Your task to perform on an android device: turn off airplane mode Image 0: 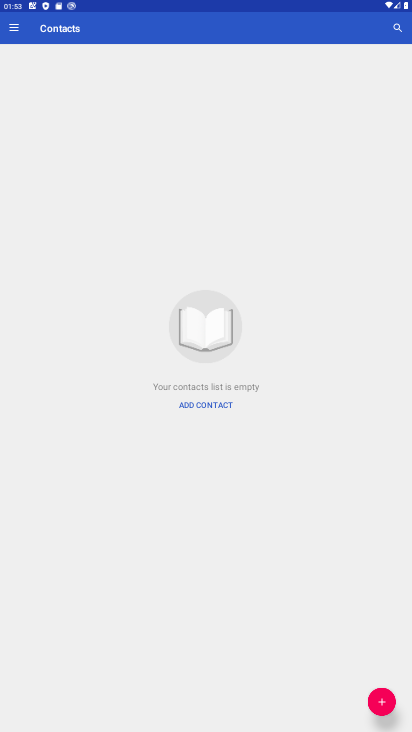
Step 0: press home button
Your task to perform on an android device: turn off airplane mode Image 1: 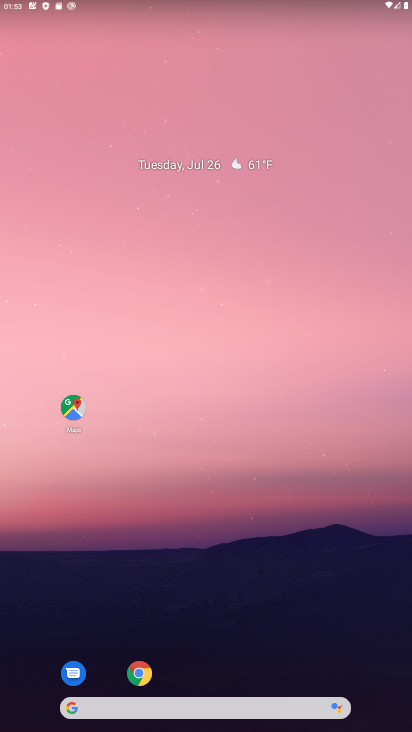
Step 1: drag from (202, 705) to (201, 168)
Your task to perform on an android device: turn off airplane mode Image 2: 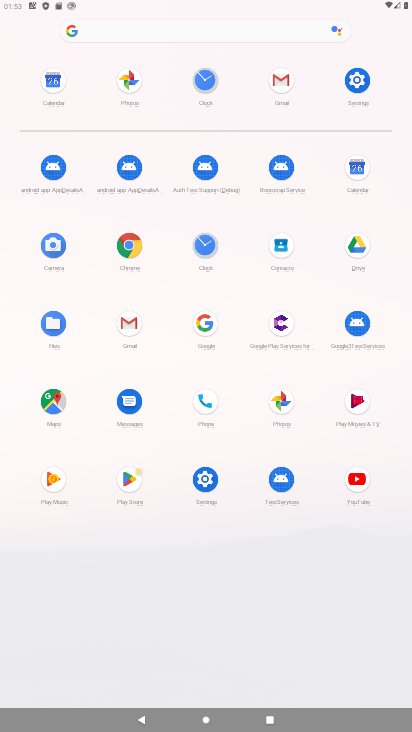
Step 2: click (352, 80)
Your task to perform on an android device: turn off airplane mode Image 3: 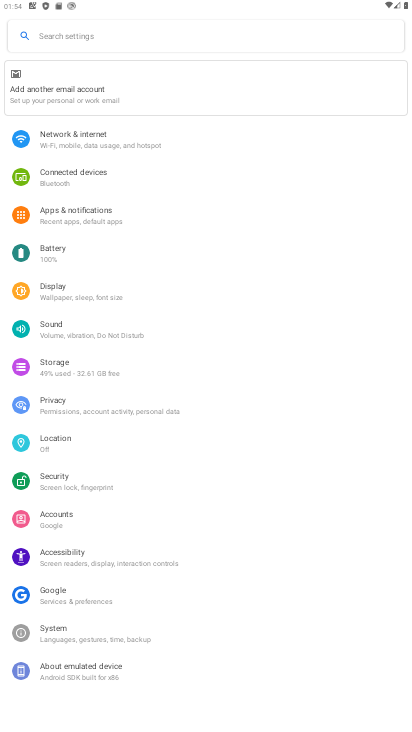
Step 3: click (80, 141)
Your task to perform on an android device: turn off airplane mode Image 4: 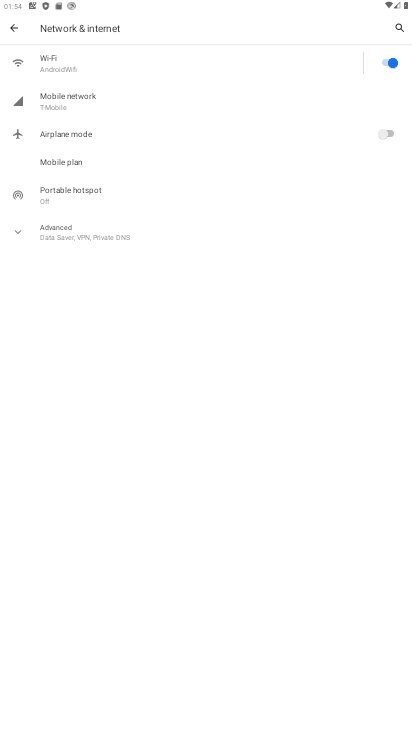
Step 4: task complete